Your task to perform on an android device: turn off translation in the chrome app Image 0: 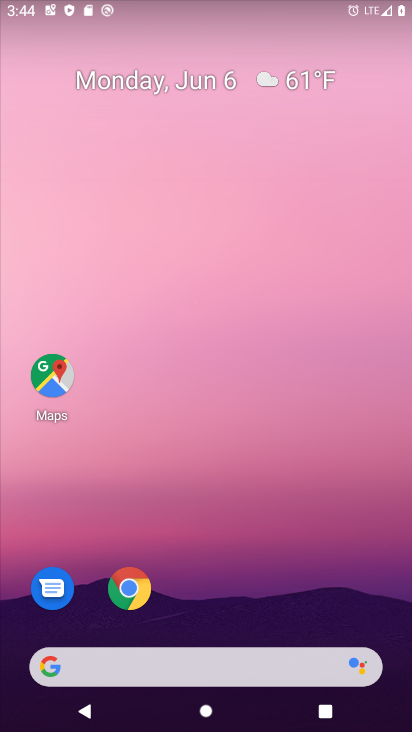
Step 0: drag from (275, 612) to (263, 112)
Your task to perform on an android device: turn off translation in the chrome app Image 1: 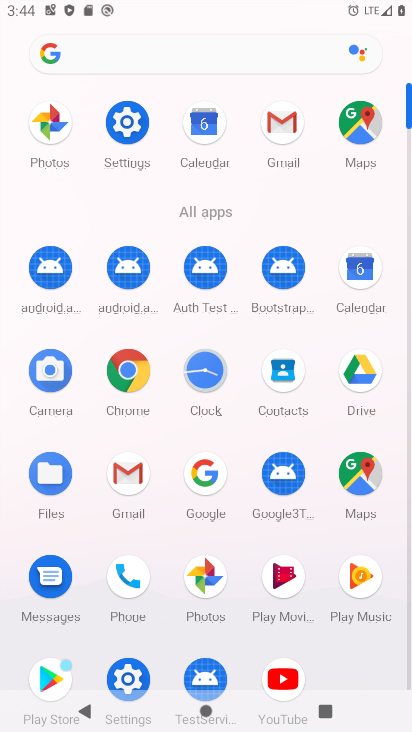
Step 1: click (135, 130)
Your task to perform on an android device: turn off translation in the chrome app Image 2: 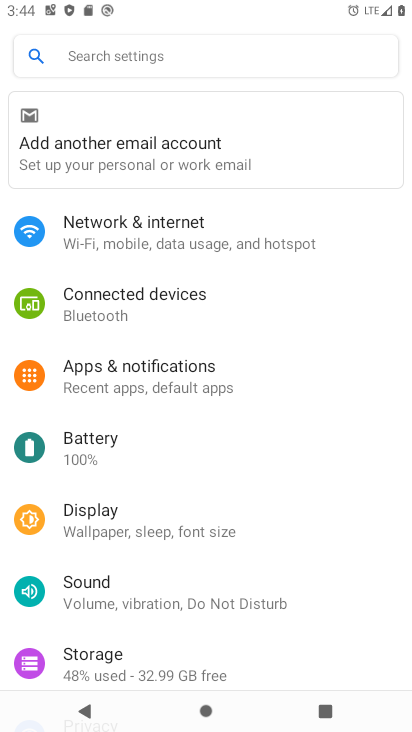
Step 2: press home button
Your task to perform on an android device: turn off translation in the chrome app Image 3: 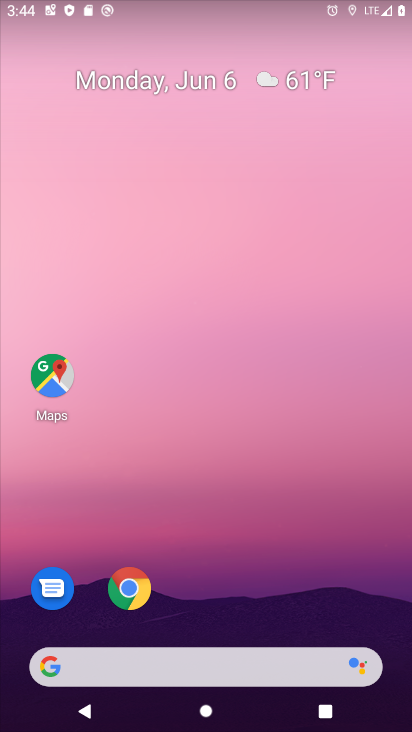
Step 3: drag from (200, 244) to (167, 80)
Your task to perform on an android device: turn off translation in the chrome app Image 4: 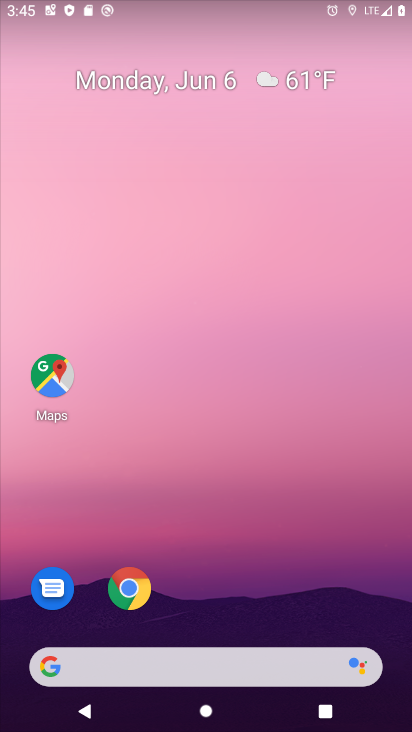
Step 4: click (141, 583)
Your task to perform on an android device: turn off translation in the chrome app Image 5: 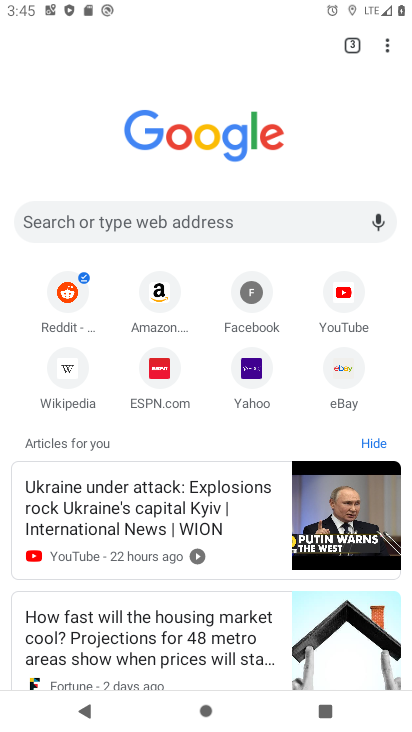
Step 5: click (385, 36)
Your task to perform on an android device: turn off translation in the chrome app Image 6: 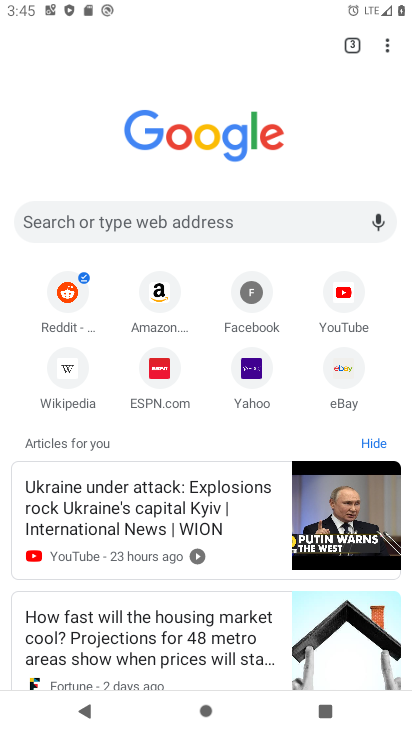
Step 6: click (383, 47)
Your task to perform on an android device: turn off translation in the chrome app Image 7: 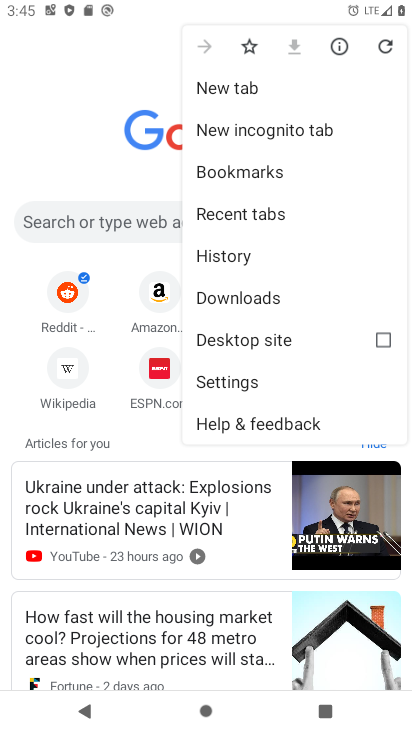
Step 7: click (258, 380)
Your task to perform on an android device: turn off translation in the chrome app Image 8: 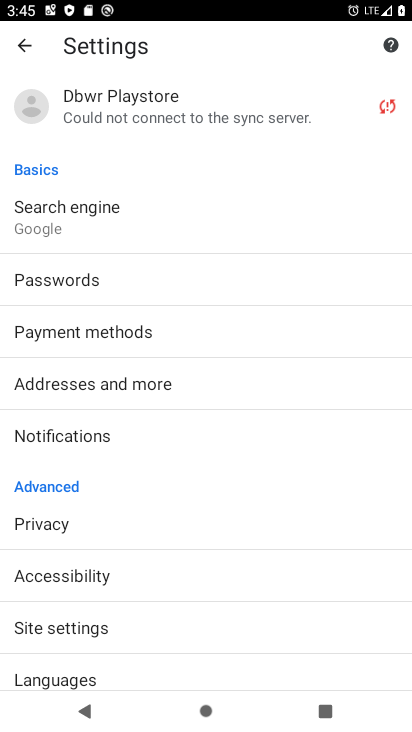
Step 8: drag from (192, 595) to (177, 432)
Your task to perform on an android device: turn off translation in the chrome app Image 9: 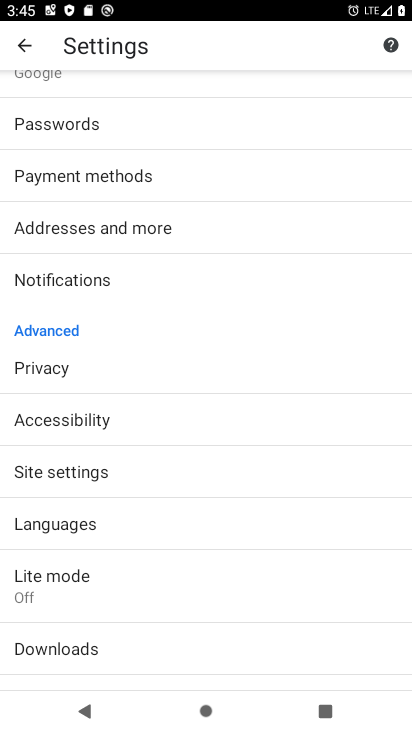
Step 9: click (151, 510)
Your task to perform on an android device: turn off translation in the chrome app Image 10: 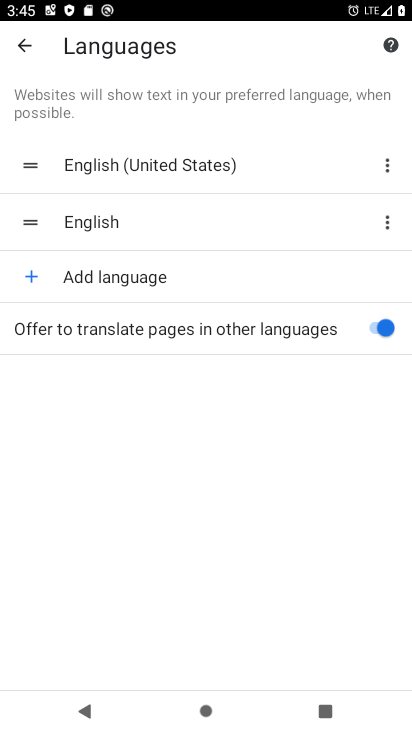
Step 10: click (384, 323)
Your task to perform on an android device: turn off translation in the chrome app Image 11: 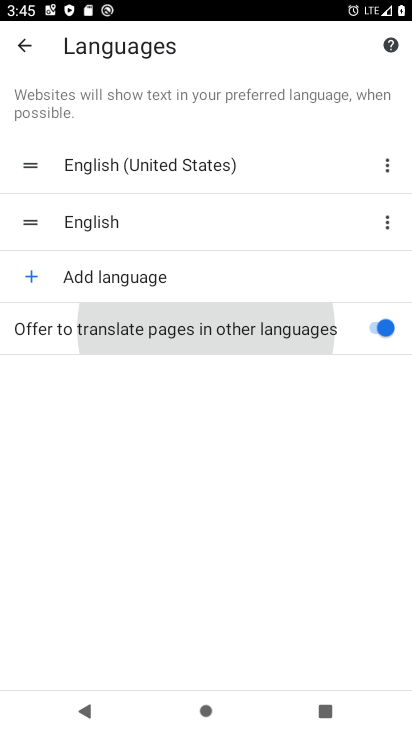
Step 11: task complete